Your task to perform on an android device: Open Youtube and go to "Your channel" Image 0: 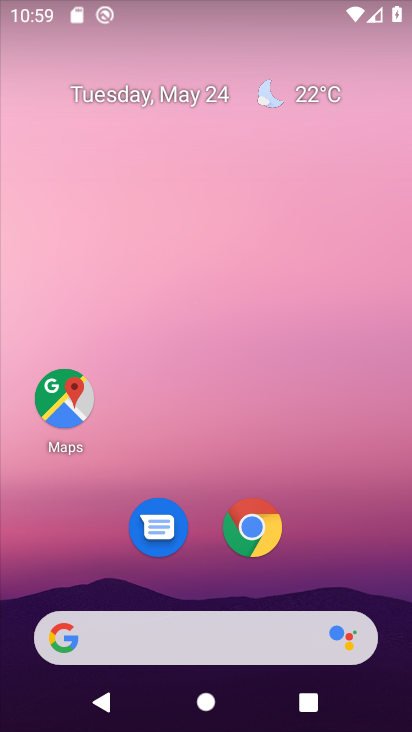
Step 0: press home button
Your task to perform on an android device: Open Youtube and go to "Your channel" Image 1: 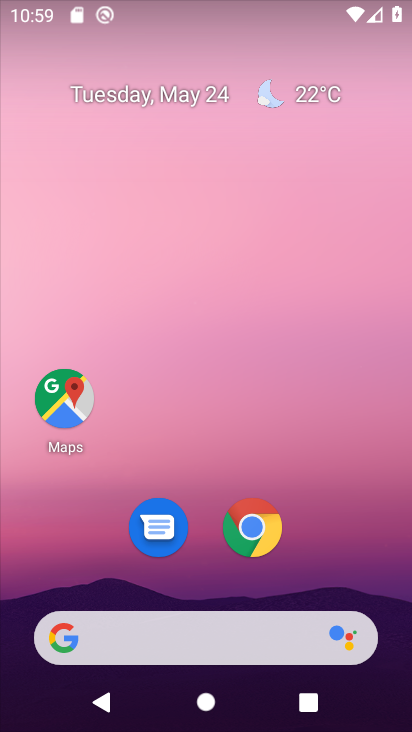
Step 1: drag from (182, 629) to (318, 40)
Your task to perform on an android device: Open Youtube and go to "Your channel" Image 2: 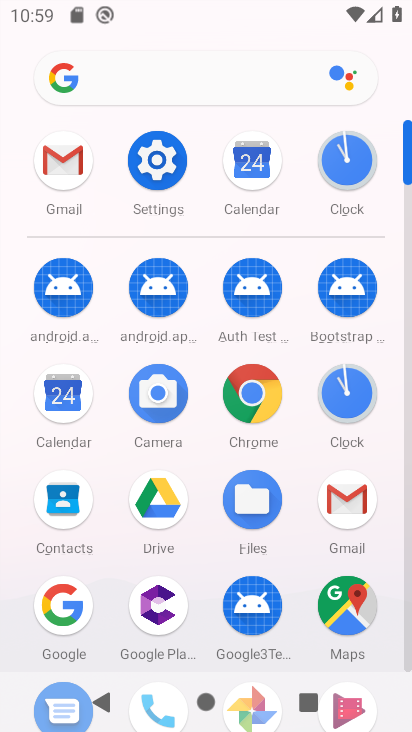
Step 2: drag from (213, 609) to (289, 56)
Your task to perform on an android device: Open Youtube and go to "Your channel" Image 3: 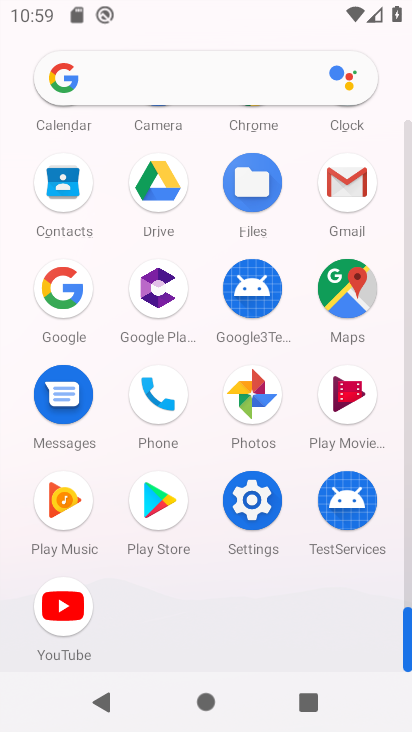
Step 3: click (70, 618)
Your task to perform on an android device: Open Youtube and go to "Your channel" Image 4: 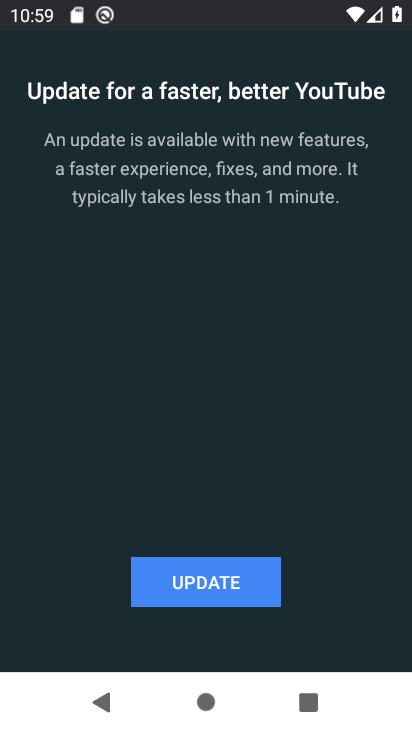
Step 4: click (215, 587)
Your task to perform on an android device: Open Youtube and go to "Your channel" Image 5: 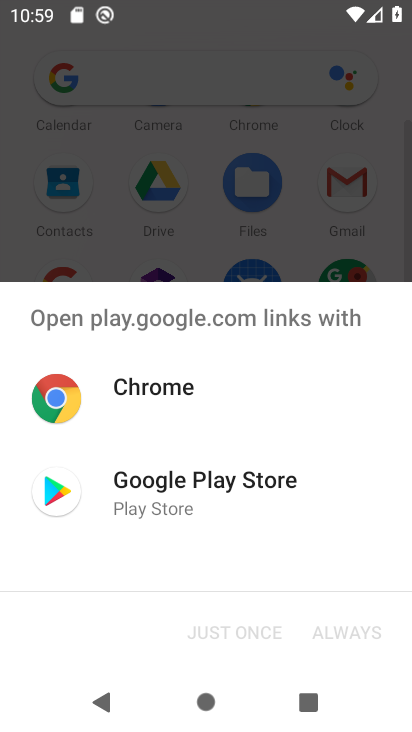
Step 5: click (235, 483)
Your task to perform on an android device: Open Youtube and go to "Your channel" Image 6: 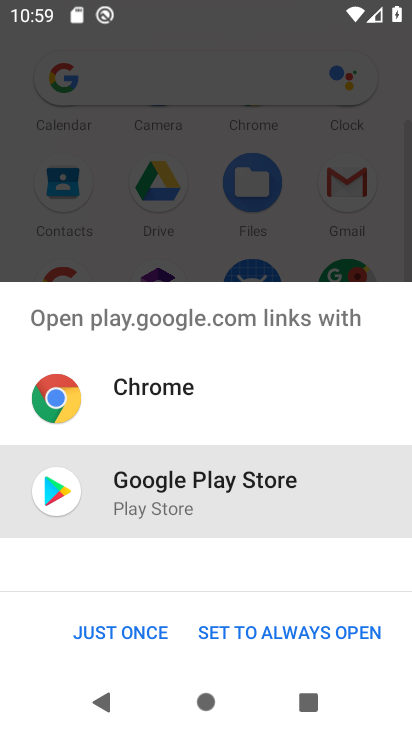
Step 6: click (117, 630)
Your task to perform on an android device: Open Youtube and go to "Your channel" Image 7: 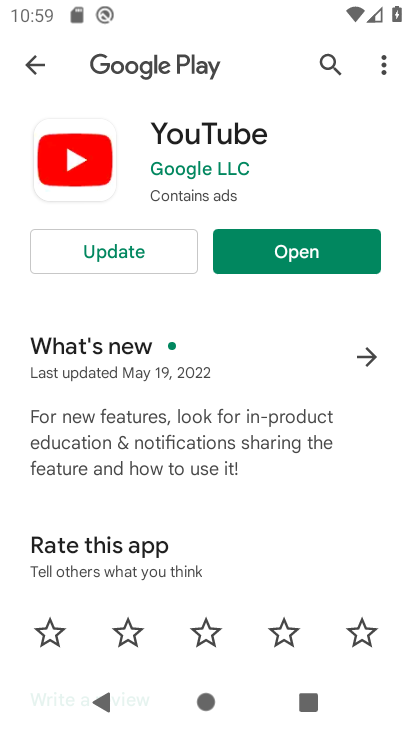
Step 7: click (137, 249)
Your task to perform on an android device: Open Youtube and go to "Your channel" Image 8: 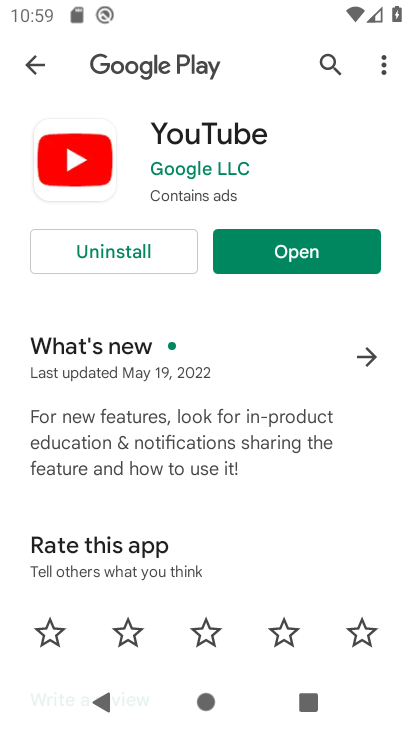
Step 8: click (292, 250)
Your task to perform on an android device: Open Youtube and go to "Your channel" Image 9: 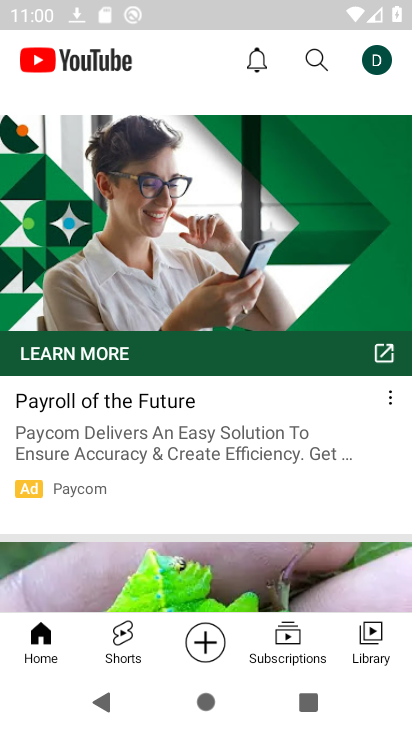
Step 9: click (375, 65)
Your task to perform on an android device: Open Youtube and go to "Your channel" Image 10: 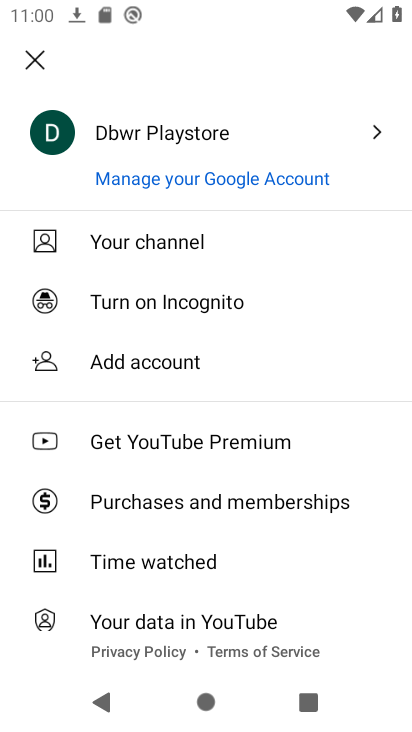
Step 10: click (191, 251)
Your task to perform on an android device: Open Youtube and go to "Your channel" Image 11: 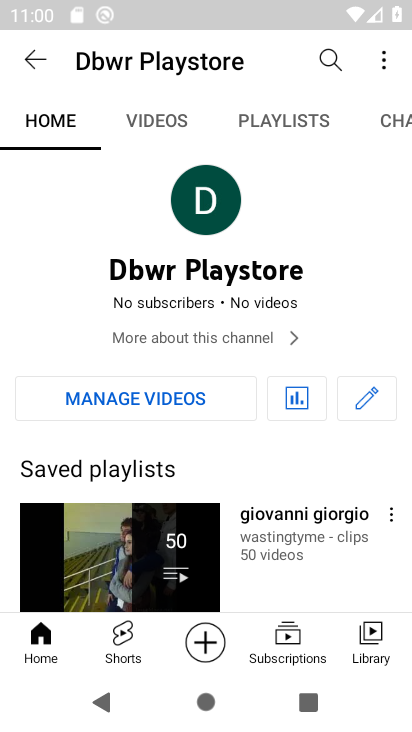
Step 11: task complete